Your task to perform on an android device: Go to Amazon Image 0: 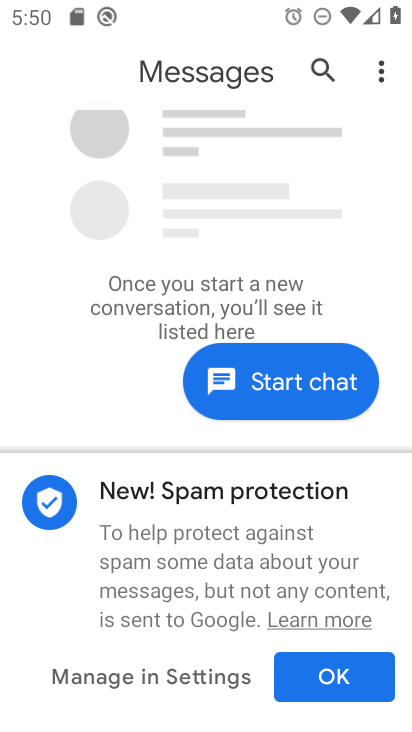
Step 0: press home button
Your task to perform on an android device: Go to Amazon Image 1: 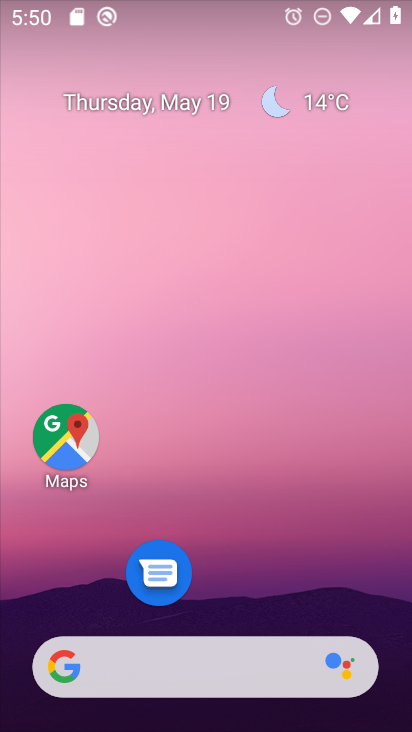
Step 1: drag from (254, 604) to (246, 141)
Your task to perform on an android device: Go to Amazon Image 2: 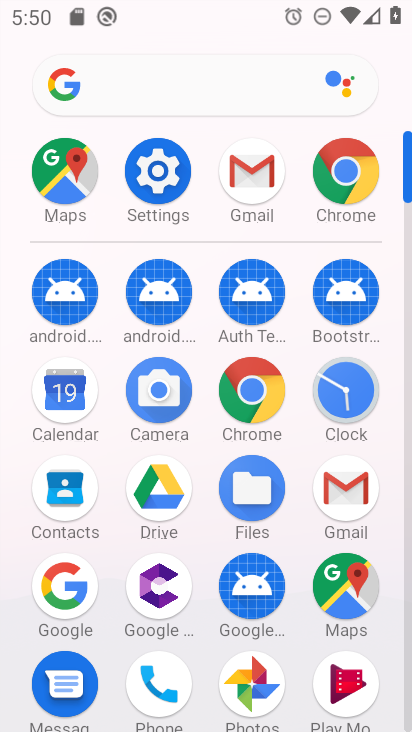
Step 2: click (344, 209)
Your task to perform on an android device: Go to Amazon Image 3: 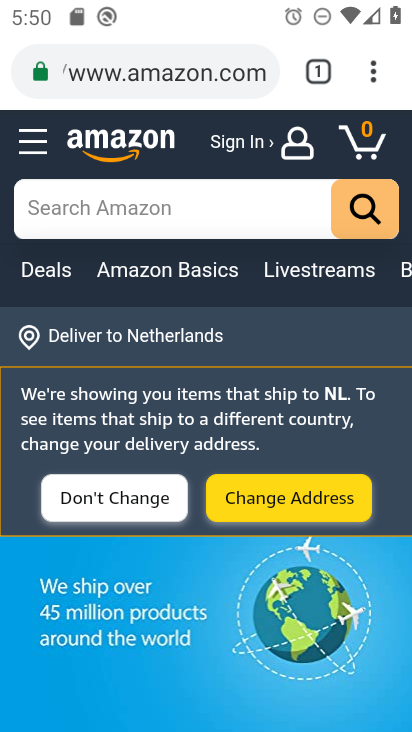
Step 3: task complete